Your task to perform on an android device: toggle show notifications on the lock screen Image 0: 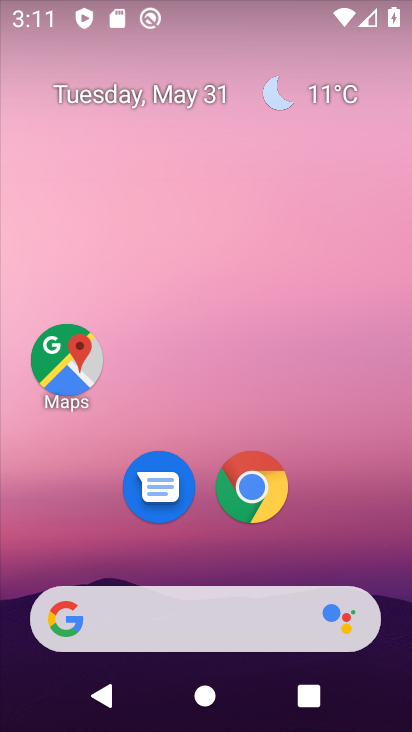
Step 0: drag from (328, 534) to (296, 104)
Your task to perform on an android device: toggle show notifications on the lock screen Image 1: 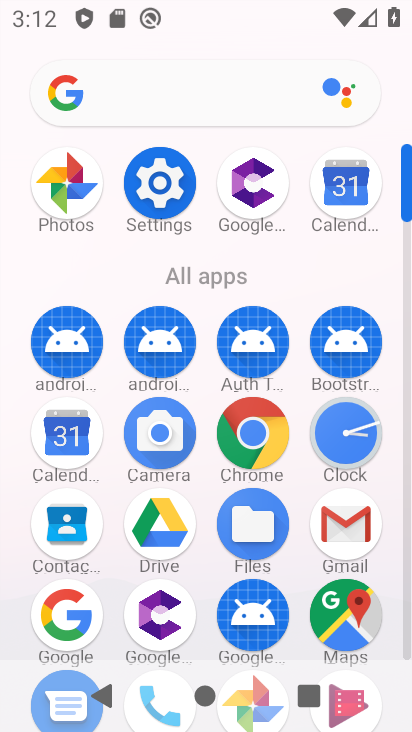
Step 1: click (161, 181)
Your task to perform on an android device: toggle show notifications on the lock screen Image 2: 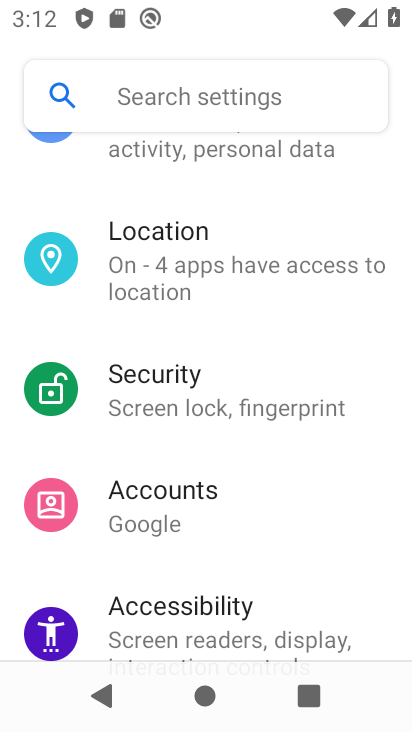
Step 2: drag from (181, 197) to (166, 293)
Your task to perform on an android device: toggle show notifications on the lock screen Image 3: 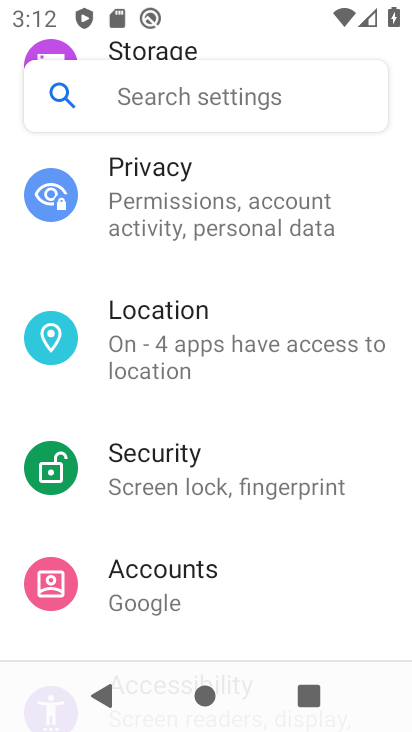
Step 3: drag from (230, 251) to (210, 364)
Your task to perform on an android device: toggle show notifications on the lock screen Image 4: 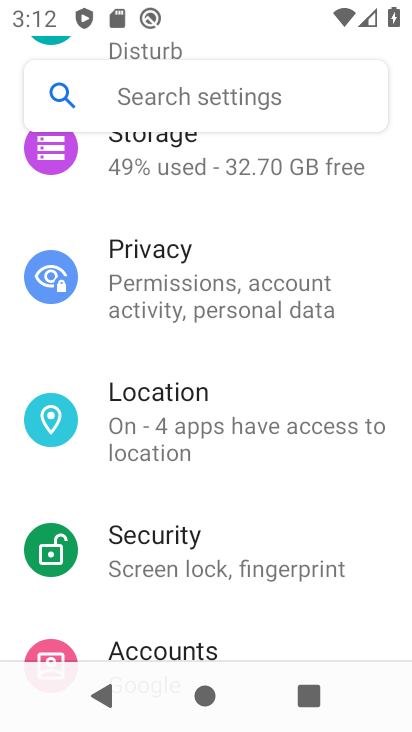
Step 4: drag from (238, 230) to (227, 348)
Your task to perform on an android device: toggle show notifications on the lock screen Image 5: 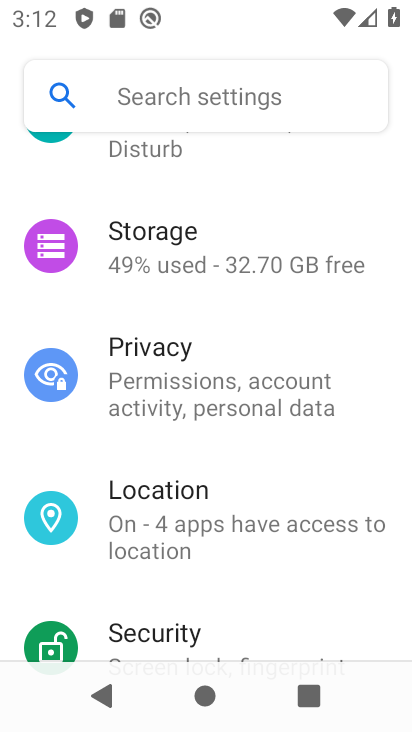
Step 5: drag from (241, 188) to (227, 320)
Your task to perform on an android device: toggle show notifications on the lock screen Image 6: 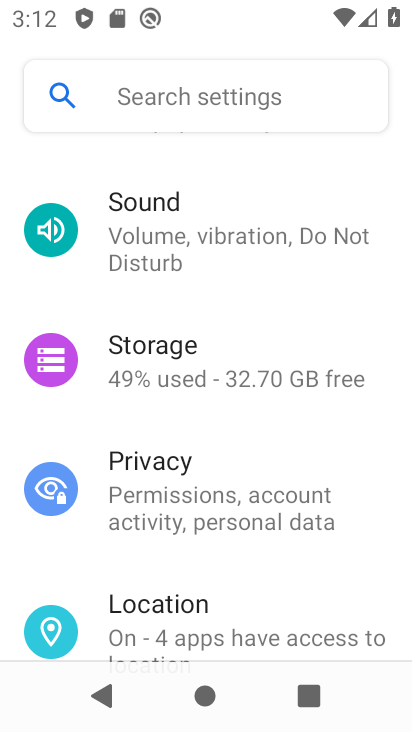
Step 6: drag from (243, 165) to (233, 307)
Your task to perform on an android device: toggle show notifications on the lock screen Image 7: 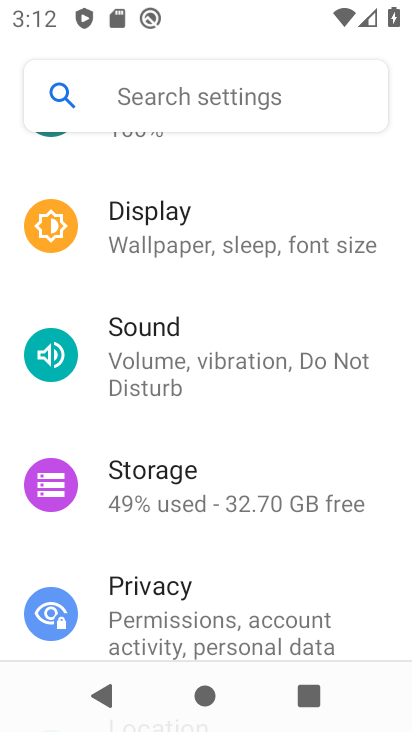
Step 7: drag from (263, 194) to (236, 313)
Your task to perform on an android device: toggle show notifications on the lock screen Image 8: 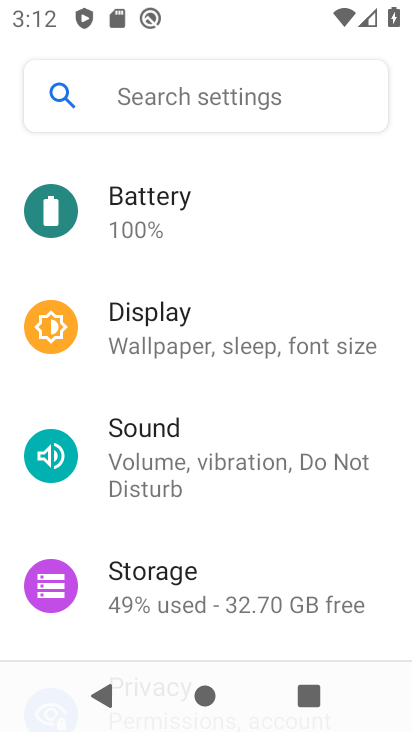
Step 8: drag from (240, 222) to (242, 301)
Your task to perform on an android device: toggle show notifications on the lock screen Image 9: 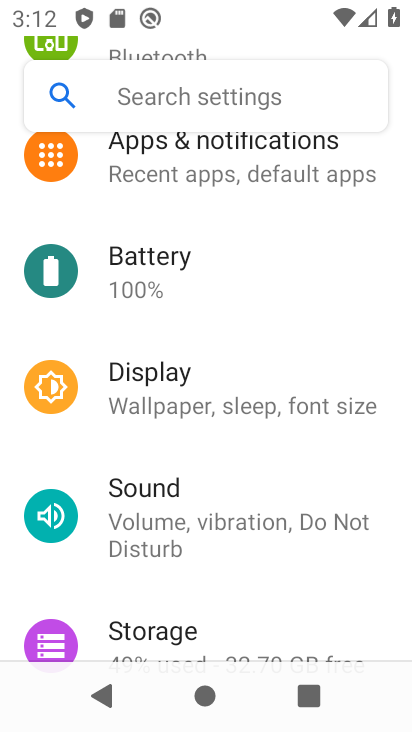
Step 9: drag from (239, 200) to (236, 325)
Your task to perform on an android device: toggle show notifications on the lock screen Image 10: 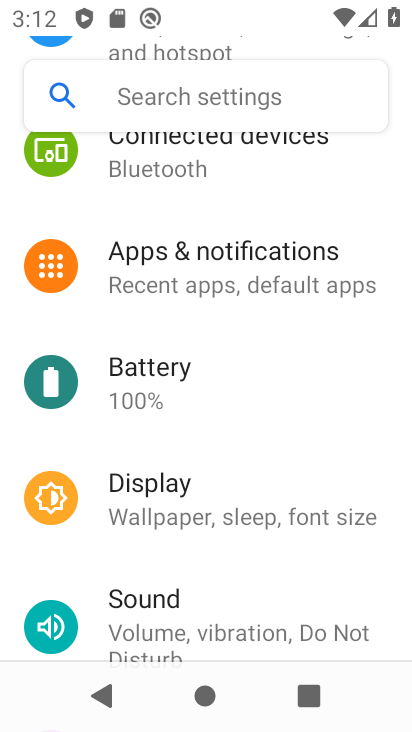
Step 10: click (213, 275)
Your task to perform on an android device: toggle show notifications on the lock screen Image 11: 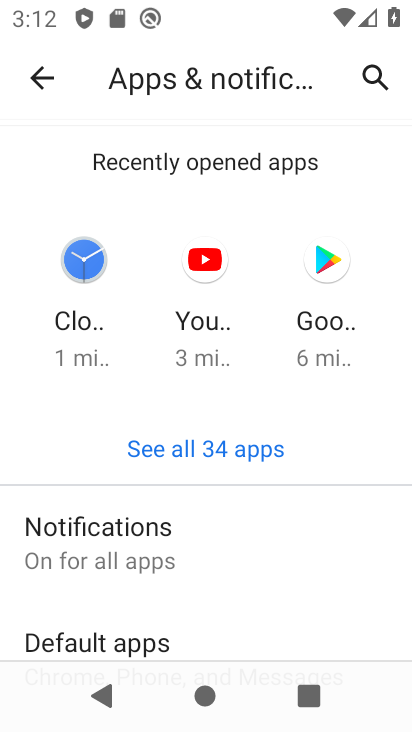
Step 11: click (91, 535)
Your task to perform on an android device: toggle show notifications on the lock screen Image 12: 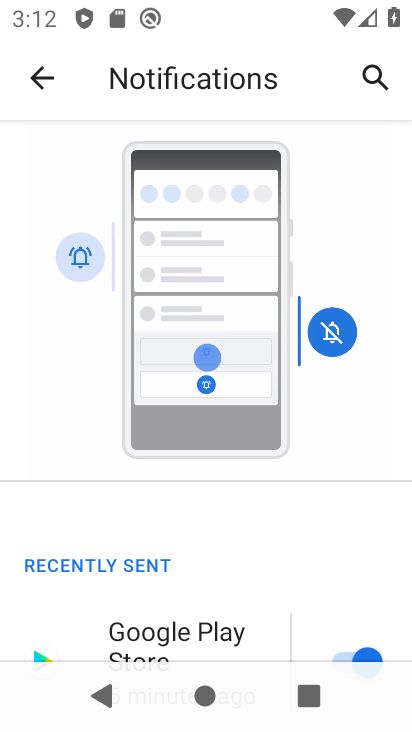
Step 12: drag from (198, 563) to (280, 380)
Your task to perform on an android device: toggle show notifications on the lock screen Image 13: 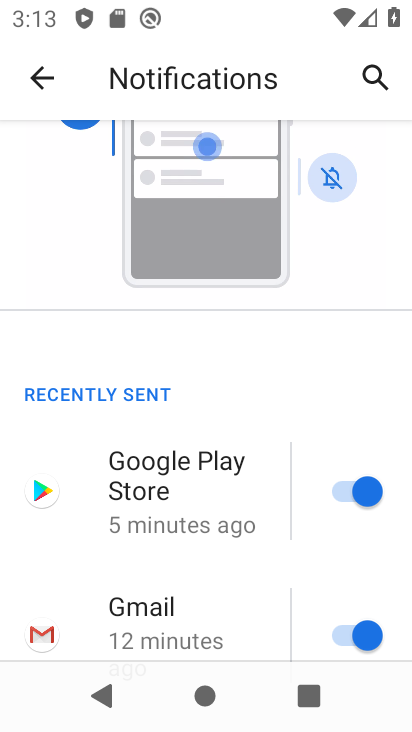
Step 13: drag from (157, 565) to (264, 416)
Your task to perform on an android device: toggle show notifications on the lock screen Image 14: 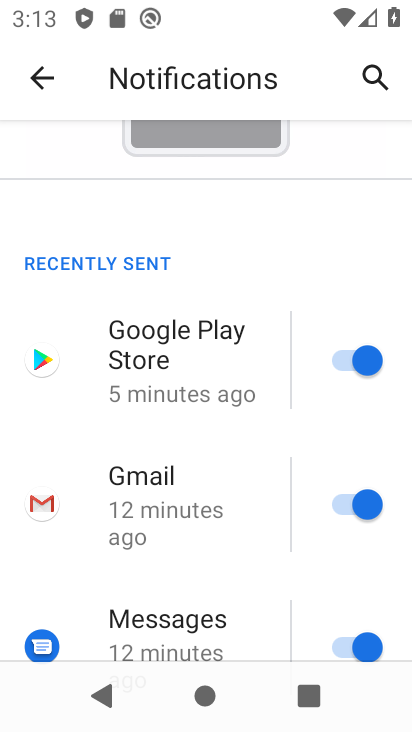
Step 14: drag from (154, 587) to (290, 349)
Your task to perform on an android device: toggle show notifications on the lock screen Image 15: 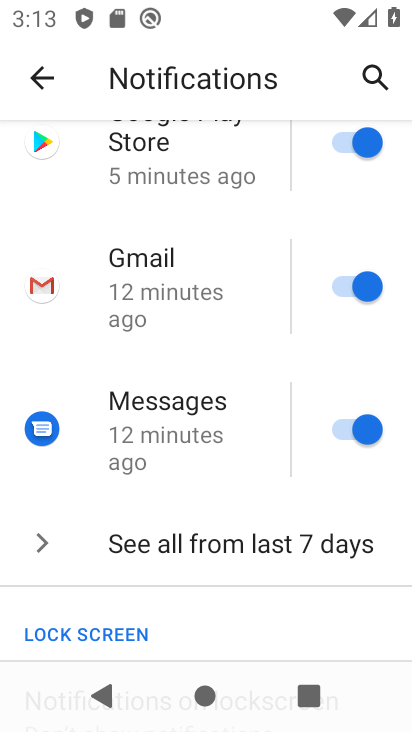
Step 15: drag from (133, 506) to (215, 312)
Your task to perform on an android device: toggle show notifications on the lock screen Image 16: 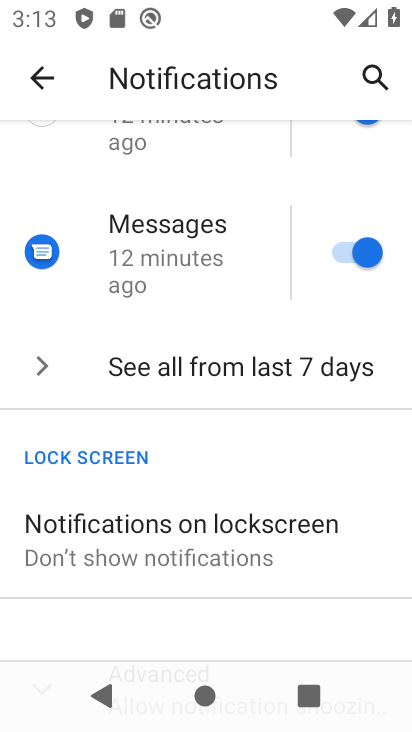
Step 16: click (184, 527)
Your task to perform on an android device: toggle show notifications on the lock screen Image 17: 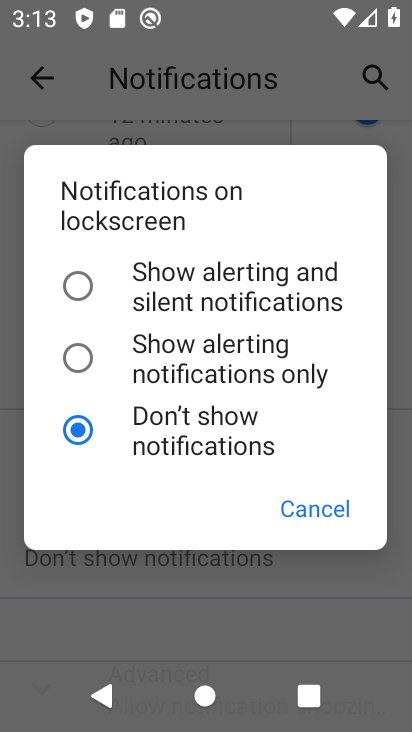
Step 17: click (74, 276)
Your task to perform on an android device: toggle show notifications on the lock screen Image 18: 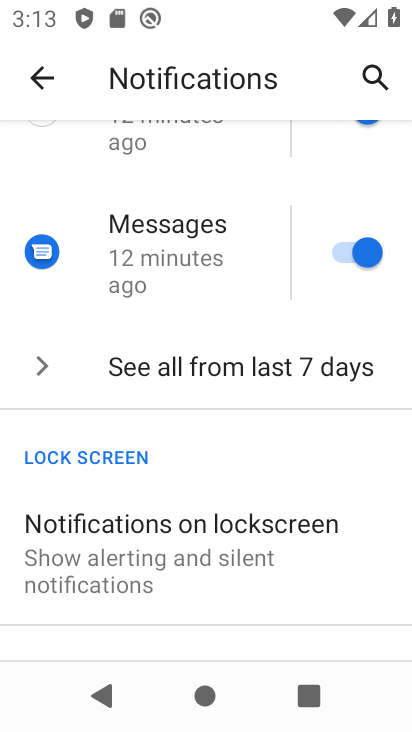
Step 18: task complete